Your task to perform on an android device: read, delete, or share a saved page in the chrome app Image 0: 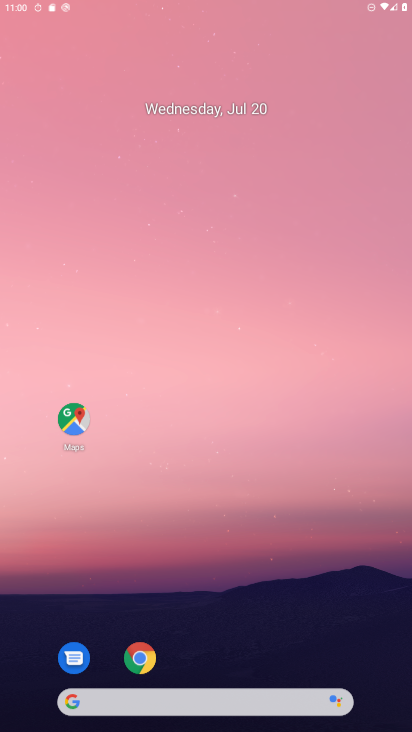
Step 0: click (226, 78)
Your task to perform on an android device: read, delete, or share a saved page in the chrome app Image 1: 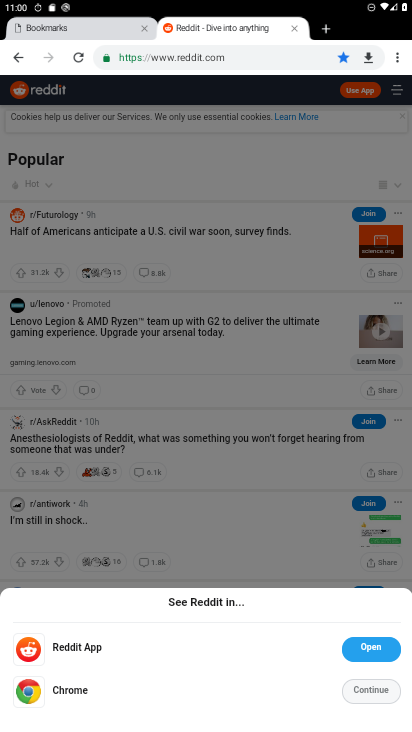
Step 1: task complete